Your task to perform on an android device: What is the recent news? Image 0: 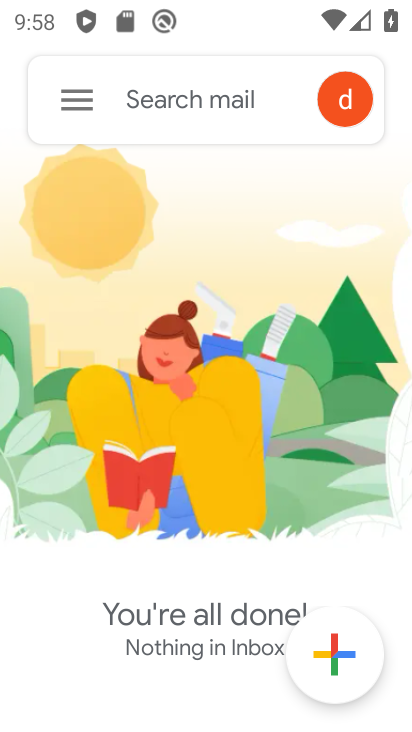
Step 0: press home button
Your task to perform on an android device: What is the recent news? Image 1: 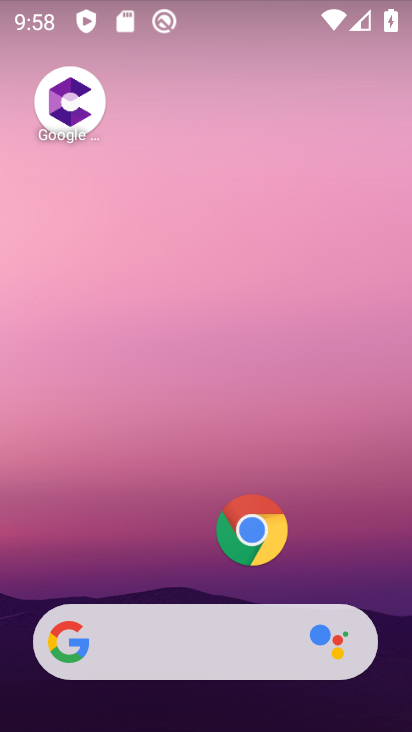
Step 1: drag from (195, 439) to (195, 153)
Your task to perform on an android device: What is the recent news? Image 2: 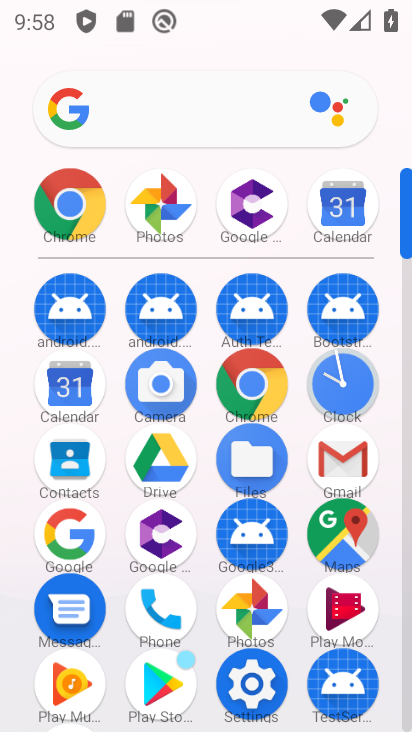
Step 2: click (158, 118)
Your task to perform on an android device: What is the recent news? Image 3: 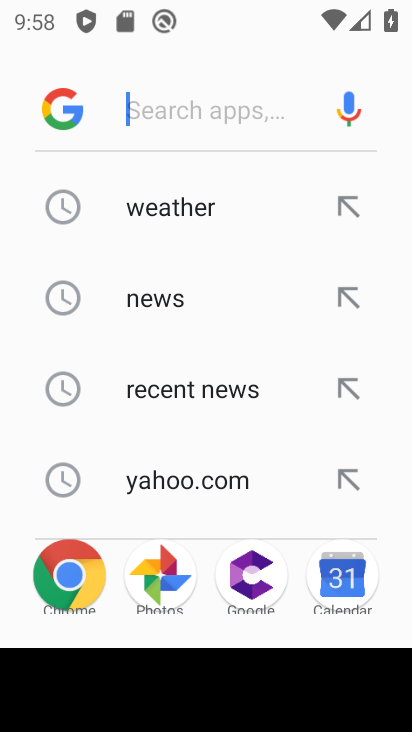
Step 3: click (217, 408)
Your task to perform on an android device: What is the recent news? Image 4: 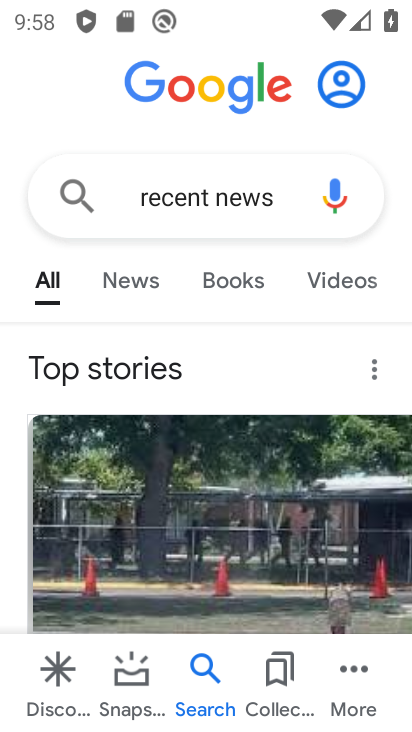
Step 4: task complete